Your task to perform on an android device: all mails in gmail Image 0: 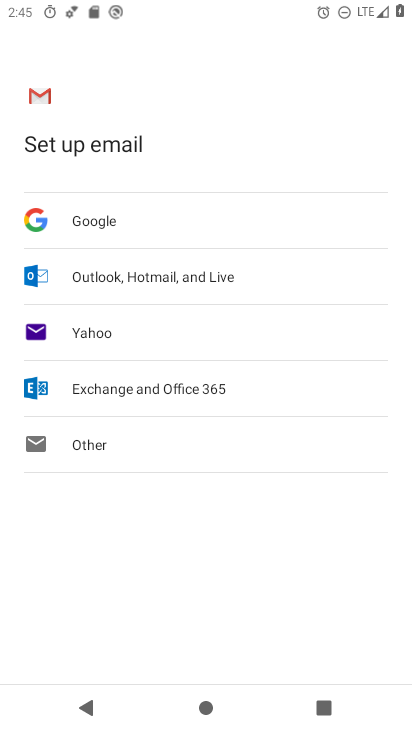
Step 0: press home button
Your task to perform on an android device: all mails in gmail Image 1: 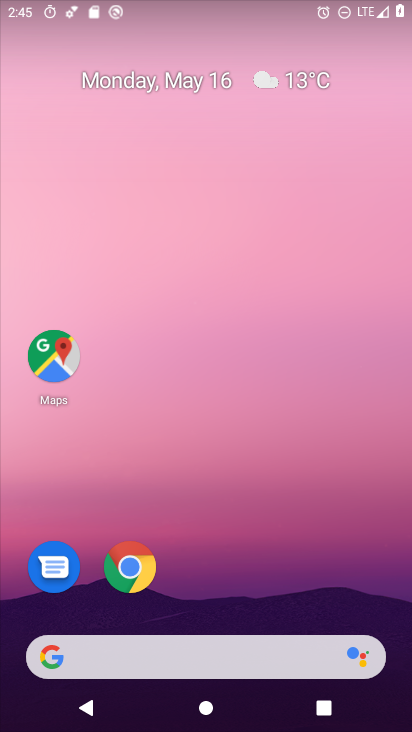
Step 1: drag from (221, 565) to (249, 160)
Your task to perform on an android device: all mails in gmail Image 2: 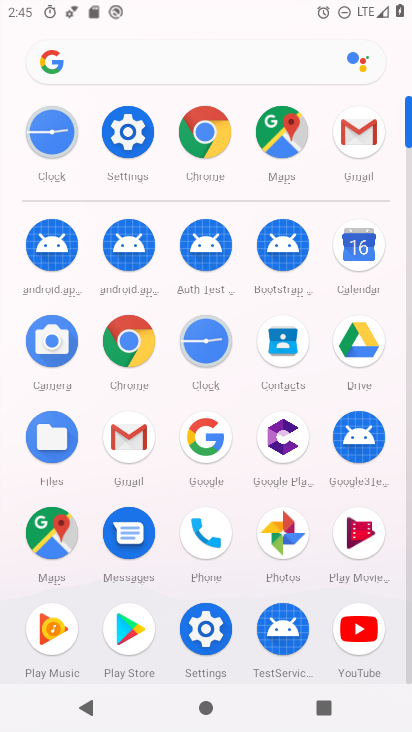
Step 2: click (123, 429)
Your task to perform on an android device: all mails in gmail Image 3: 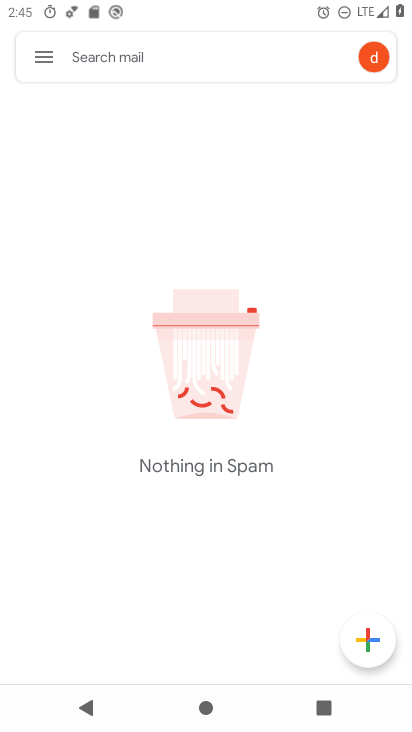
Step 3: click (38, 53)
Your task to perform on an android device: all mails in gmail Image 4: 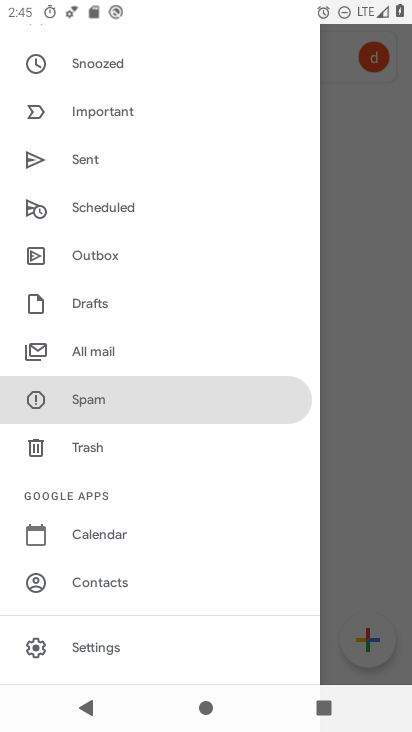
Step 4: click (108, 349)
Your task to perform on an android device: all mails in gmail Image 5: 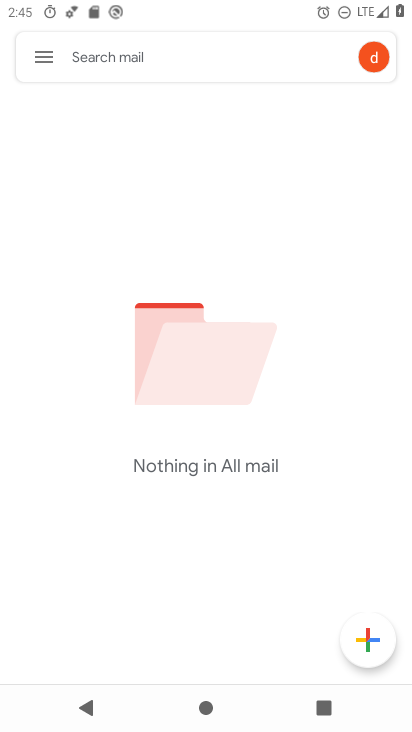
Step 5: task complete